Your task to perform on an android device: Open wifi settings Image 0: 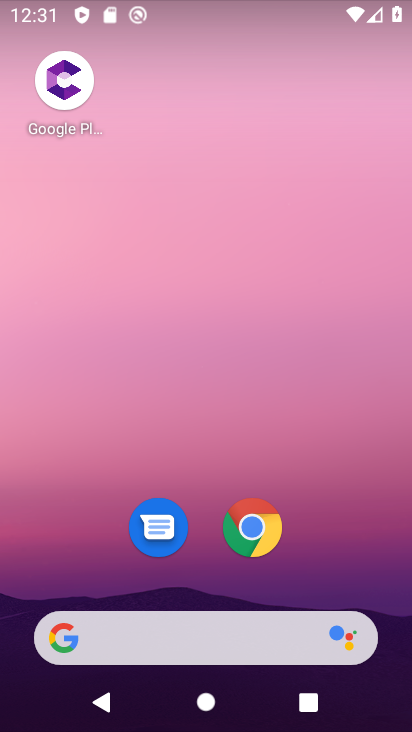
Step 0: drag from (181, 579) to (235, 189)
Your task to perform on an android device: Open wifi settings Image 1: 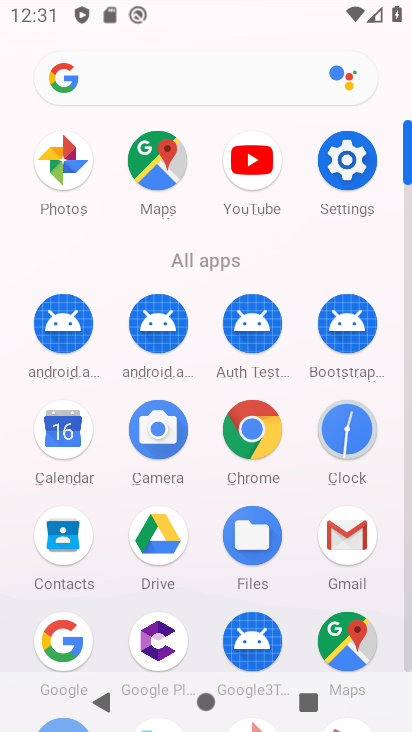
Step 1: click (345, 155)
Your task to perform on an android device: Open wifi settings Image 2: 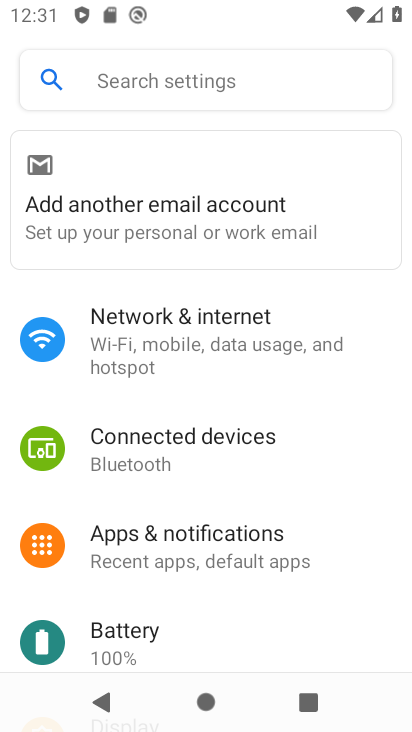
Step 2: click (195, 334)
Your task to perform on an android device: Open wifi settings Image 3: 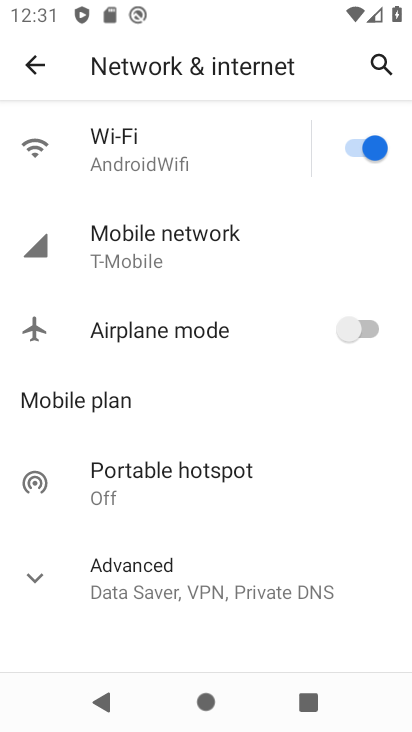
Step 3: click (173, 160)
Your task to perform on an android device: Open wifi settings Image 4: 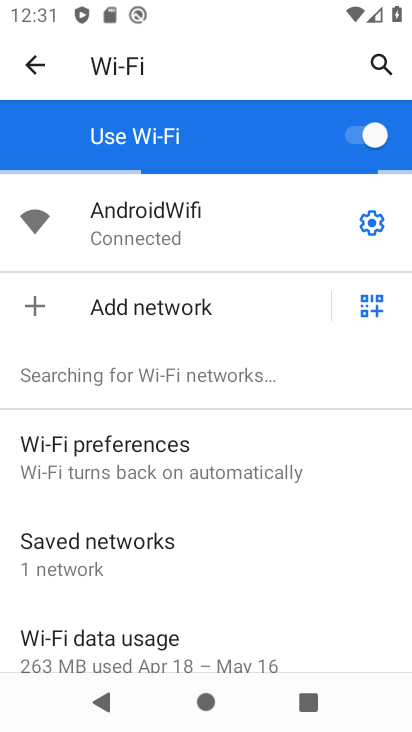
Step 4: task complete